Your task to perform on an android device: open app "Upside-Cash back on gas & food" (install if not already installed) Image 0: 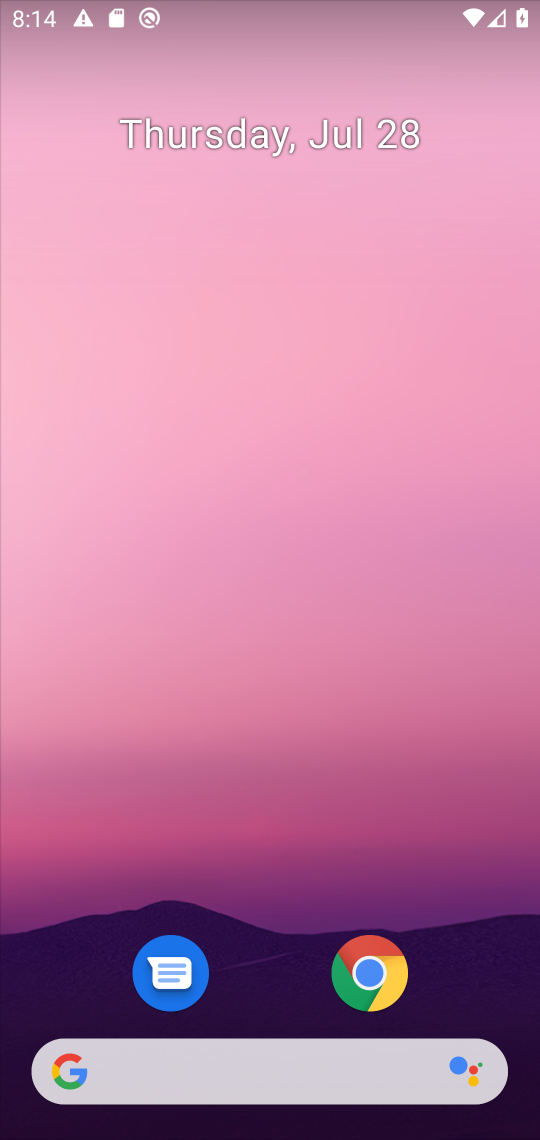
Step 0: drag from (280, 865) to (279, 89)
Your task to perform on an android device: open app "Upside-Cash back on gas & food" (install if not already installed) Image 1: 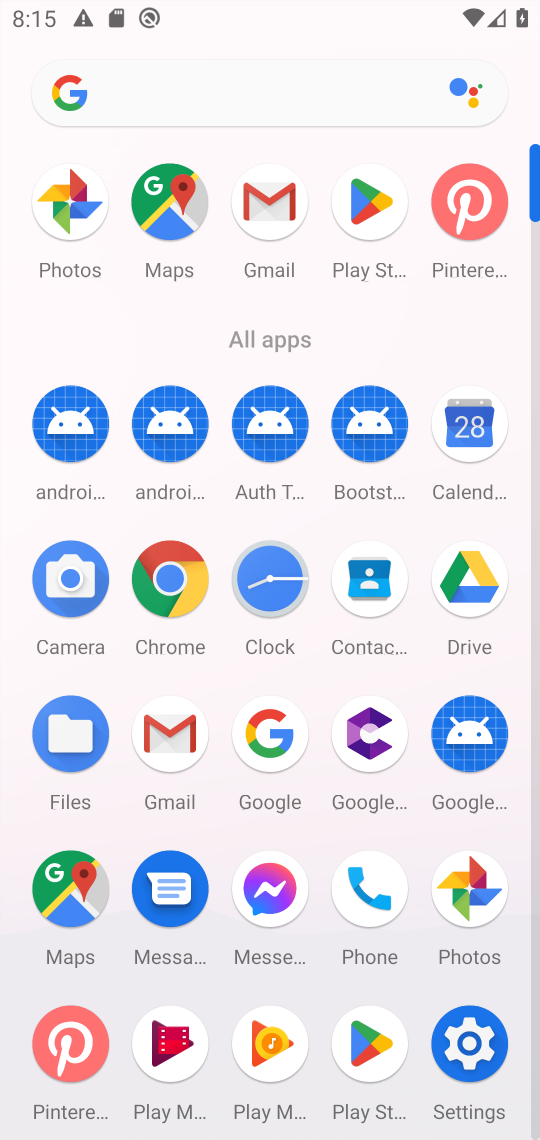
Step 1: click (376, 214)
Your task to perform on an android device: open app "Upside-Cash back on gas & food" (install if not already installed) Image 2: 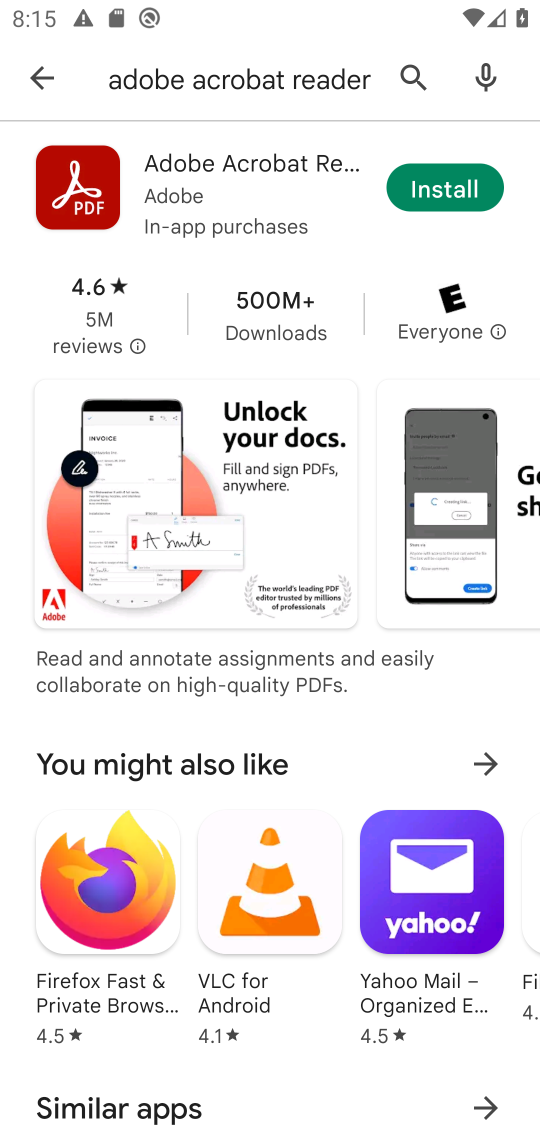
Step 2: click (31, 65)
Your task to perform on an android device: open app "Upside-Cash back on gas & food" (install if not already installed) Image 3: 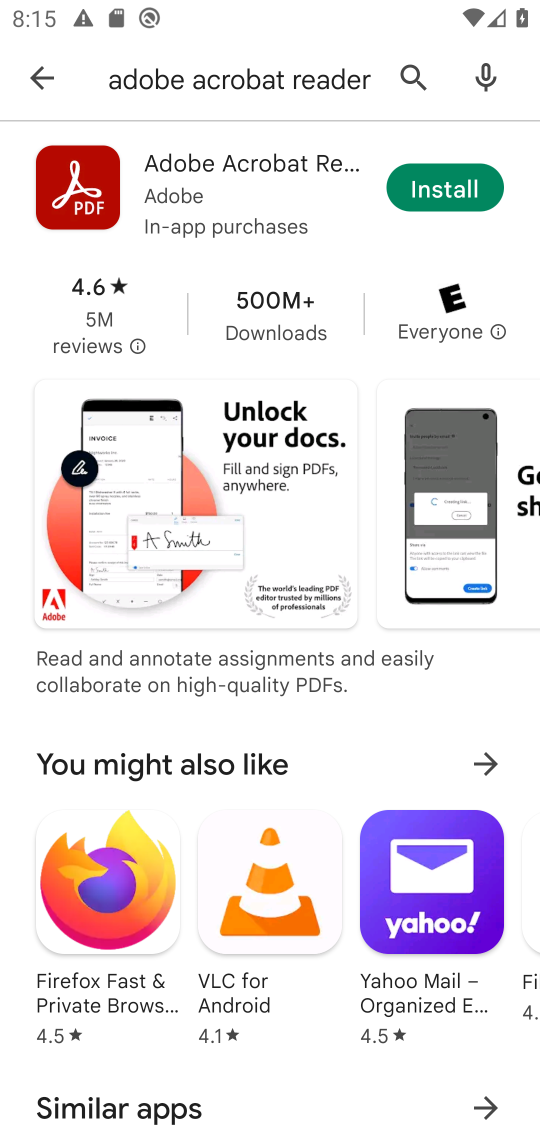
Step 3: click (43, 68)
Your task to perform on an android device: open app "Upside-Cash back on gas & food" (install if not already installed) Image 4: 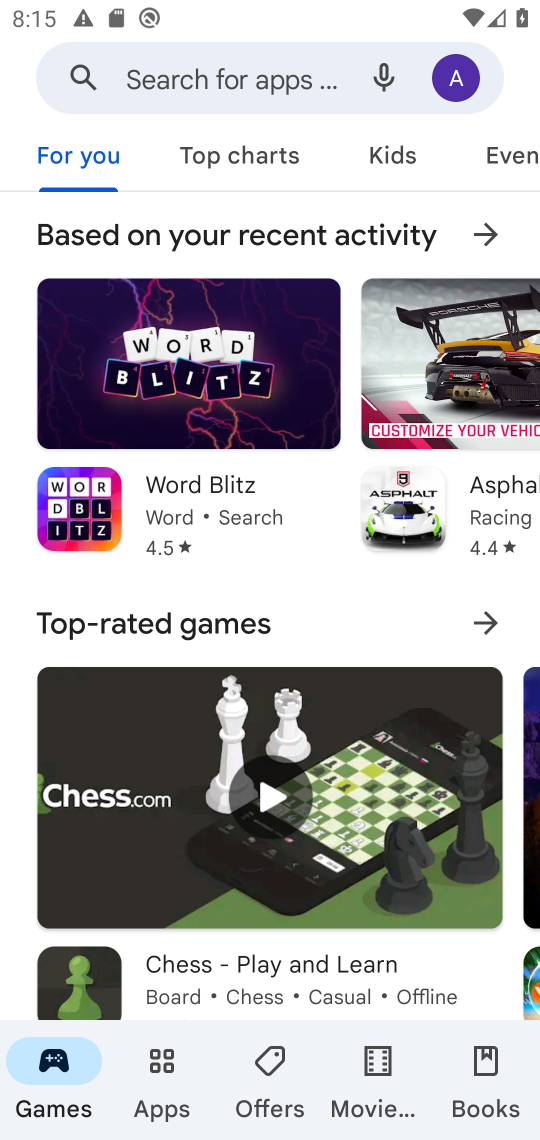
Step 4: click (264, 84)
Your task to perform on an android device: open app "Upside-Cash back on gas & food" (install if not already installed) Image 5: 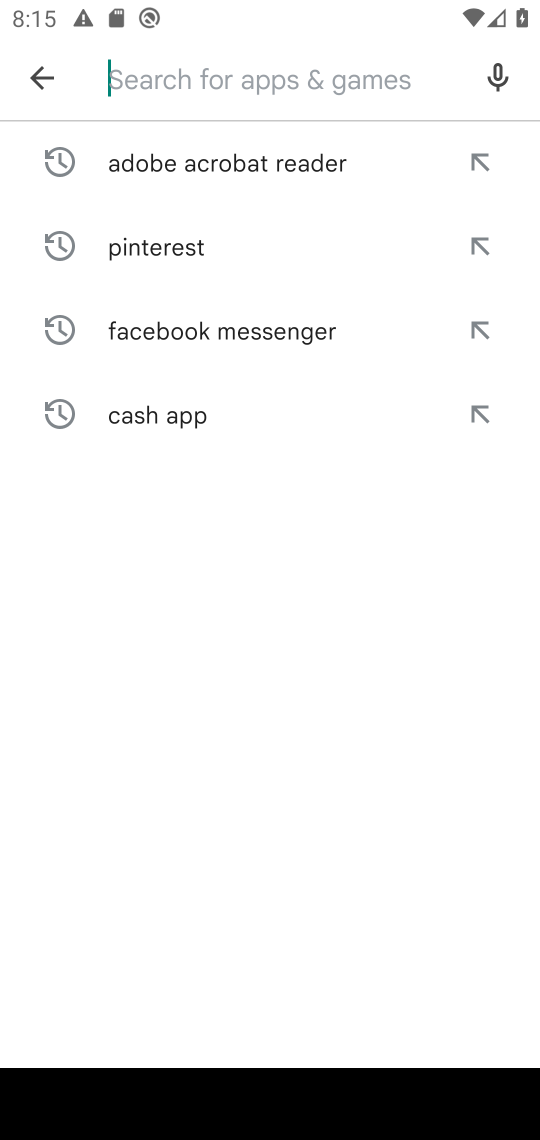
Step 5: type "Upside-Cash back on gas & food"
Your task to perform on an android device: open app "Upside-Cash back on gas & food" (install if not already installed) Image 6: 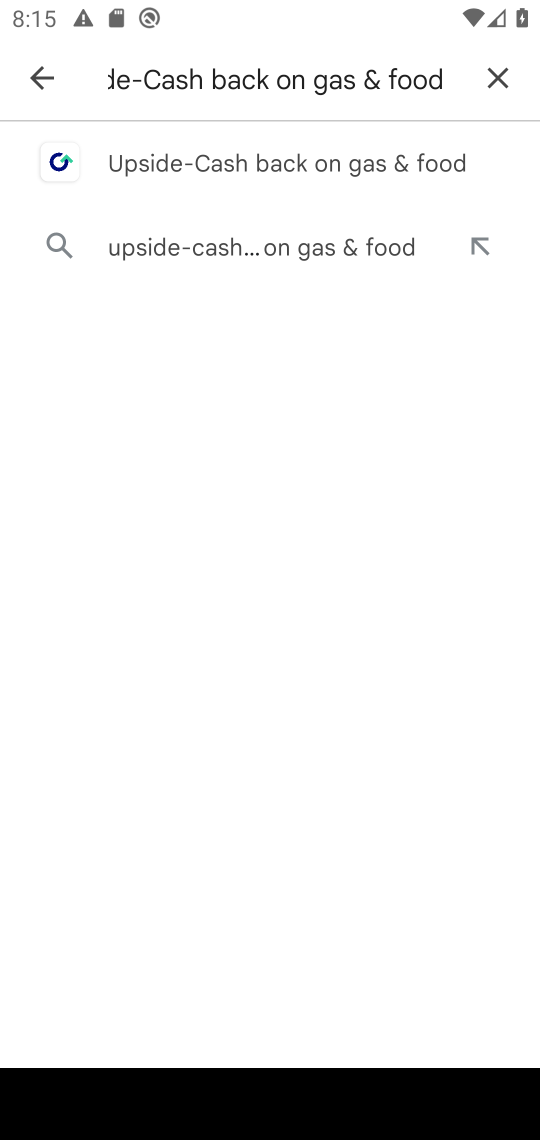
Step 6: click (302, 169)
Your task to perform on an android device: open app "Upside-Cash back on gas & food" (install if not already installed) Image 7: 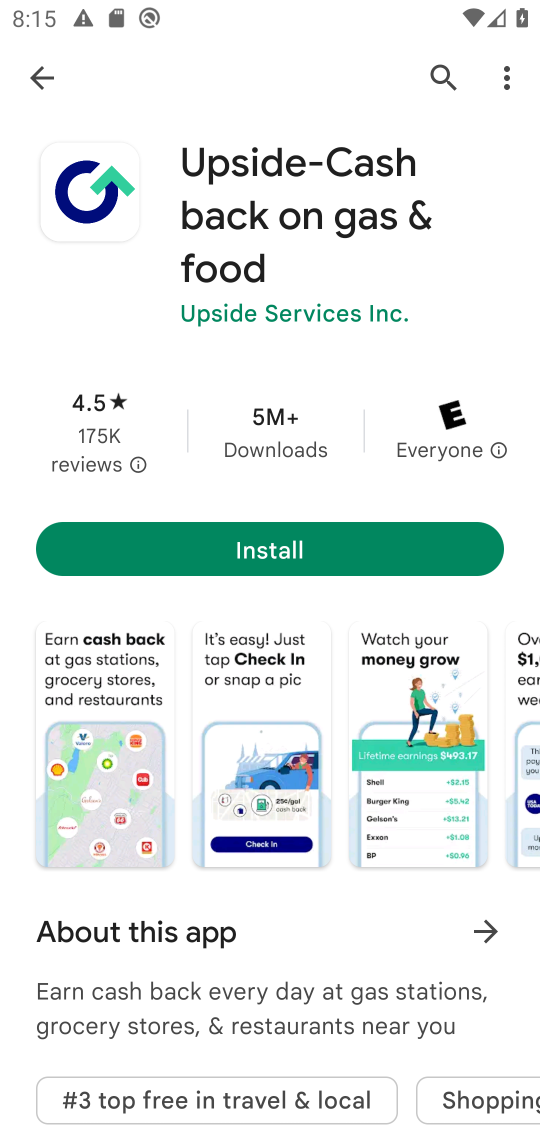
Step 7: click (255, 555)
Your task to perform on an android device: open app "Upside-Cash back on gas & food" (install if not already installed) Image 8: 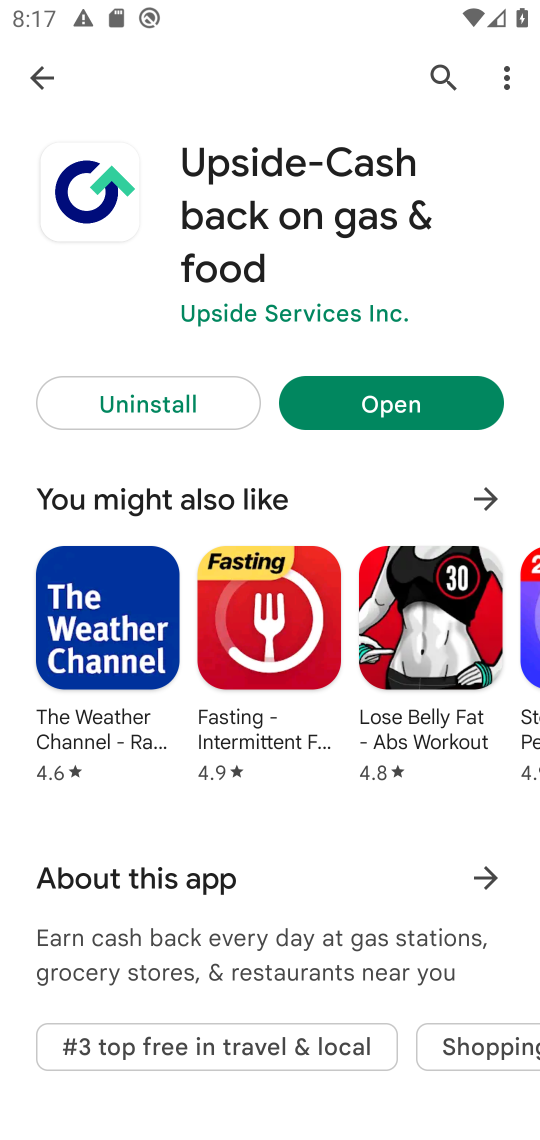
Step 8: click (461, 418)
Your task to perform on an android device: open app "Upside-Cash back on gas & food" (install if not already installed) Image 9: 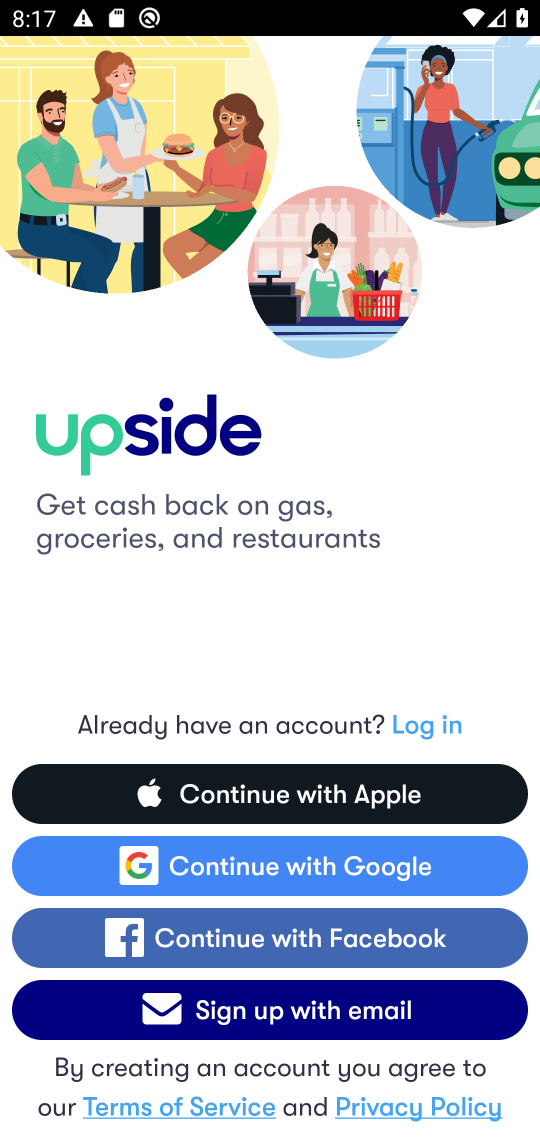
Step 9: task complete